Your task to perform on an android device: change notifications settings Image 0: 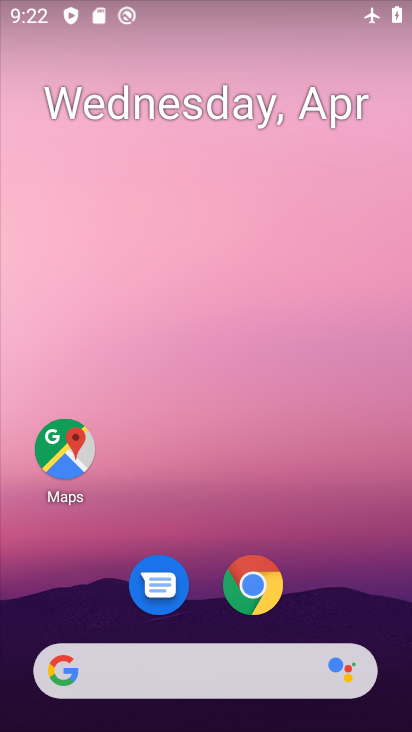
Step 0: drag from (330, 558) to (367, 104)
Your task to perform on an android device: change notifications settings Image 1: 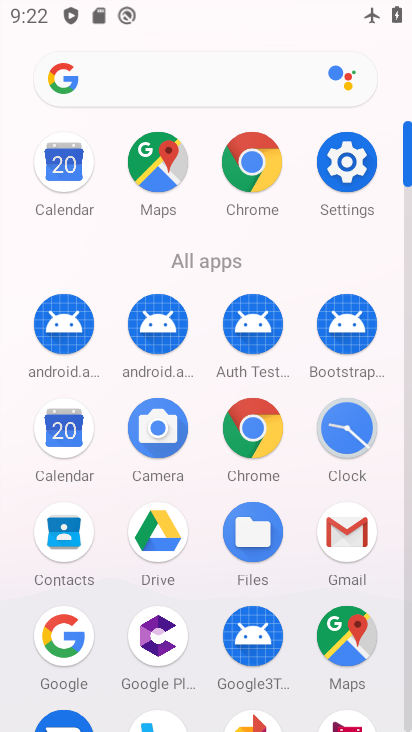
Step 1: click (346, 161)
Your task to perform on an android device: change notifications settings Image 2: 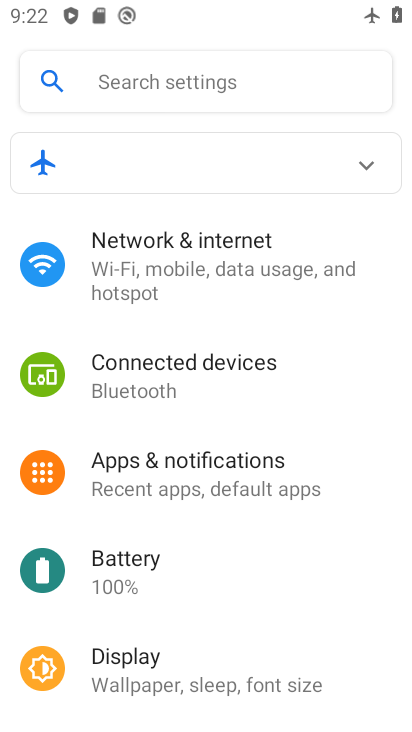
Step 2: click (222, 468)
Your task to perform on an android device: change notifications settings Image 3: 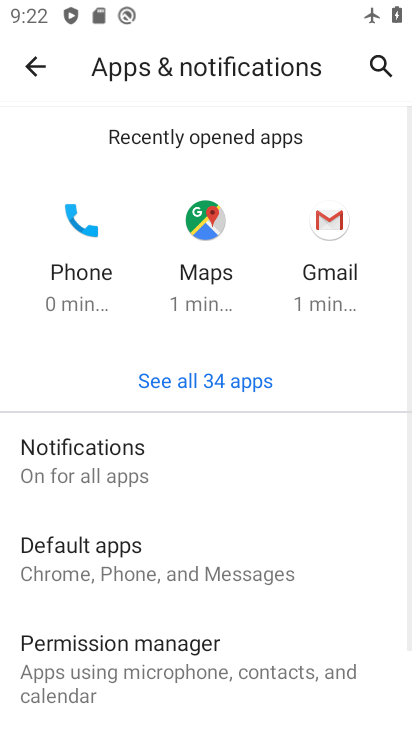
Step 3: click (222, 468)
Your task to perform on an android device: change notifications settings Image 4: 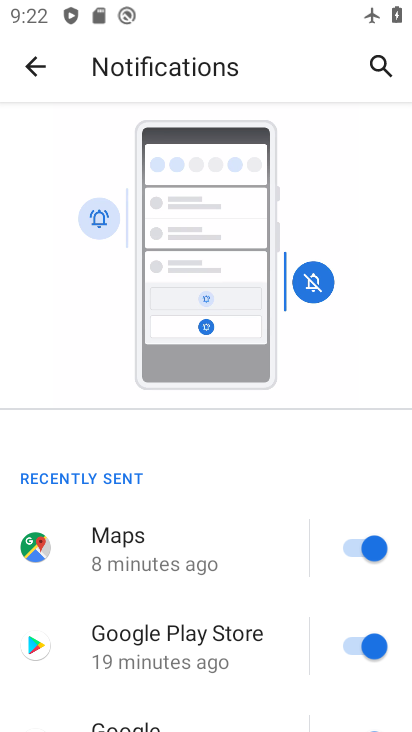
Step 4: drag from (238, 594) to (297, 204)
Your task to perform on an android device: change notifications settings Image 5: 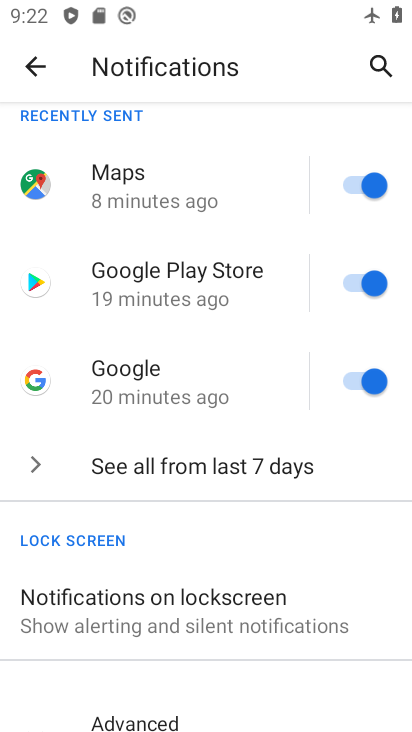
Step 5: click (244, 472)
Your task to perform on an android device: change notifications settings Image 6: 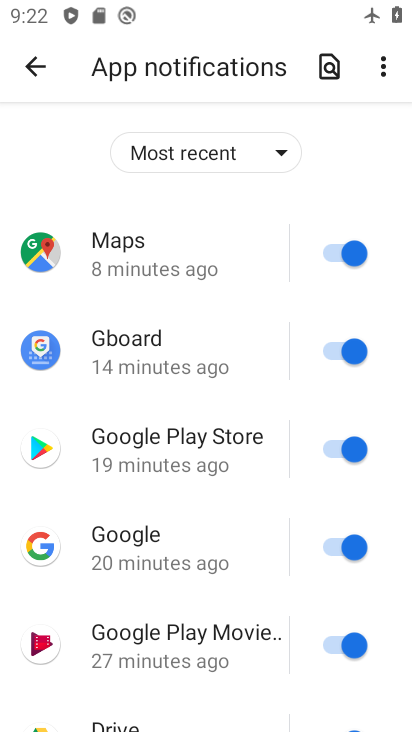
Step 6: click (338, 250)
Your task to perform on an android device: change notifications settings Image 7: 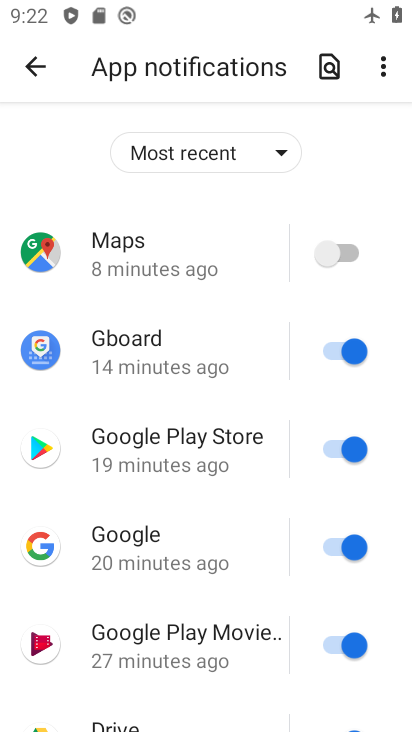
Step 7: click (333, 345)
Your task to perform on an android device: change notifications settings Image 8: 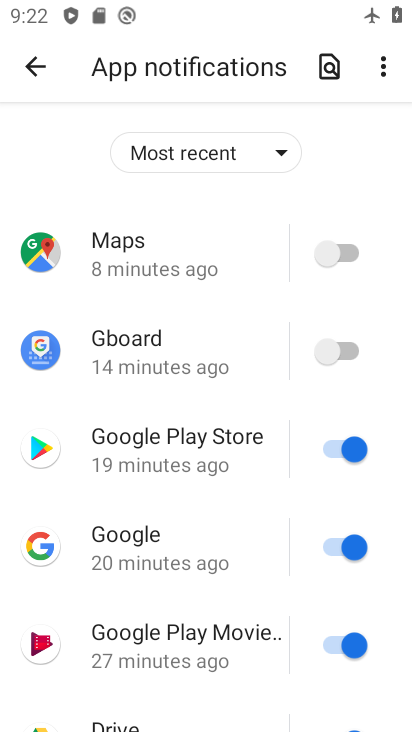
Step 8: click (333, 439)
Your task to perform on an android device: change notifications settings Image 9: 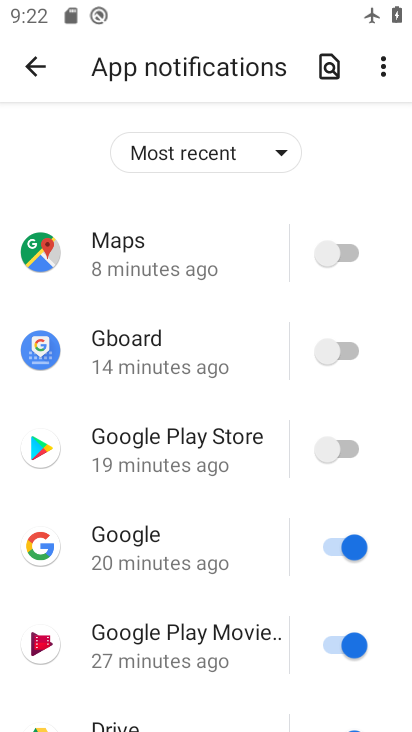
Step 9: click (339, 539)
Your task to perform on an android device: change notifications settings Image 10: 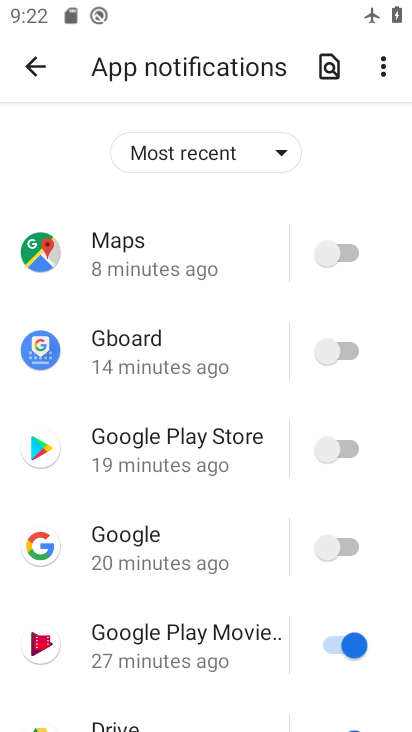
Step 10: click (339, 645)
Your task to perform on an android device: change notifications settings Image 11: 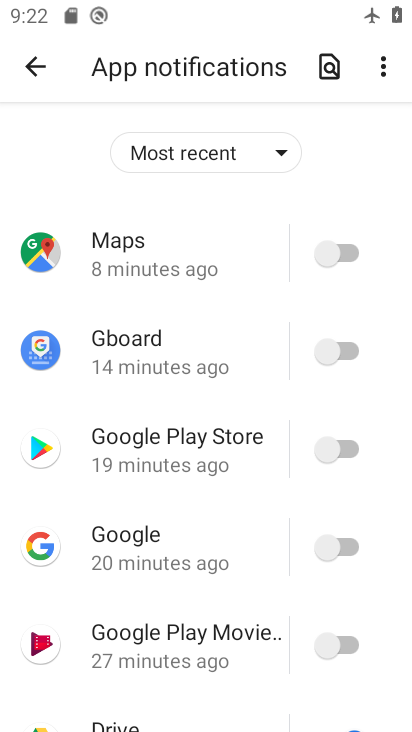
Step 11: drag from (252, 604) to (221, 224)
Your task to perform on an android device: change notifications settings Image 12: 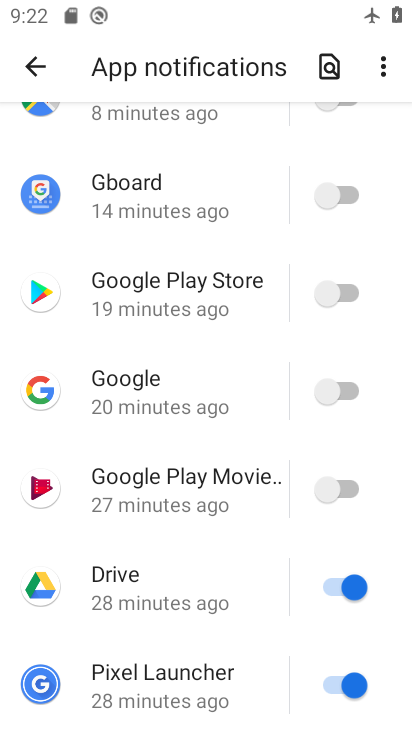
Step 12: click (327, 578)
Your task to perform on an android device: change notifications settings Image 13: 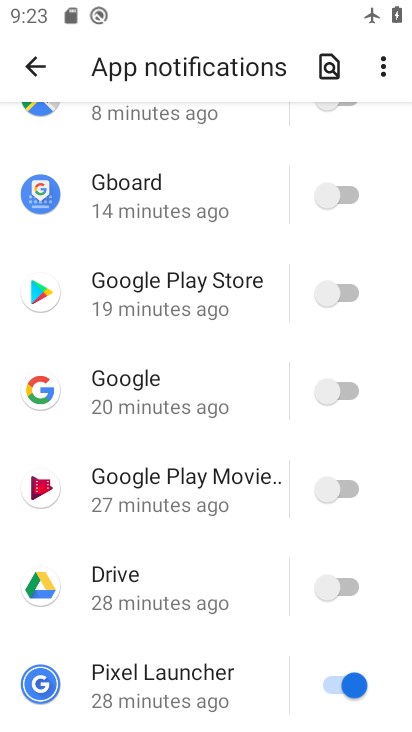
Step 13: click (348, 672)
Your task to perform on an android device: change notifications settings Image 14: 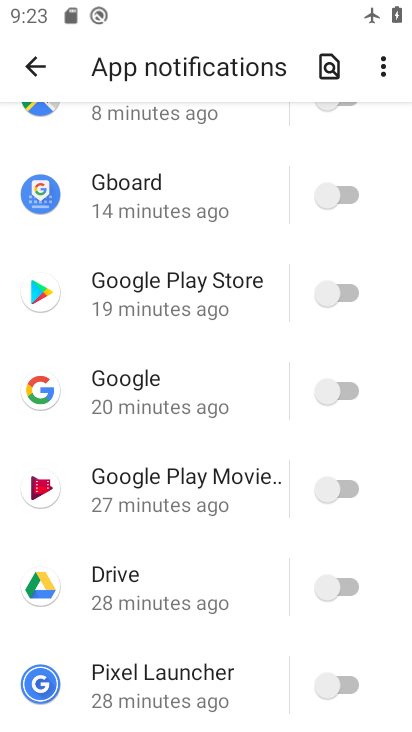
Step 14: task complete